Your task to perform on an android device: turn off improve location accuracy Image 0: 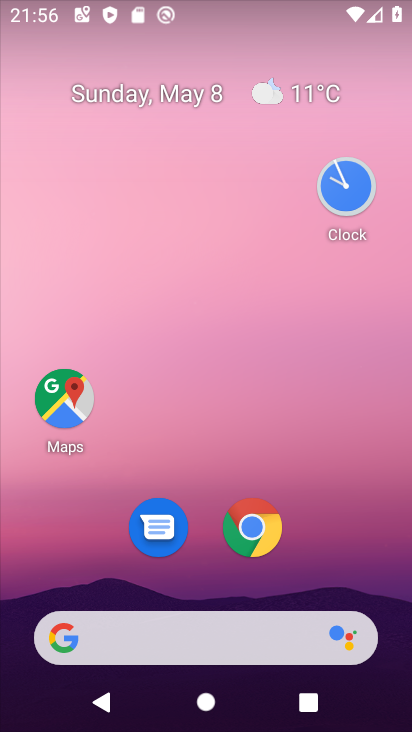
Step 0: drag from (308, 516) to (360, 125)
Your task to perform on an android device: turn off improve location accuracy Image 1: 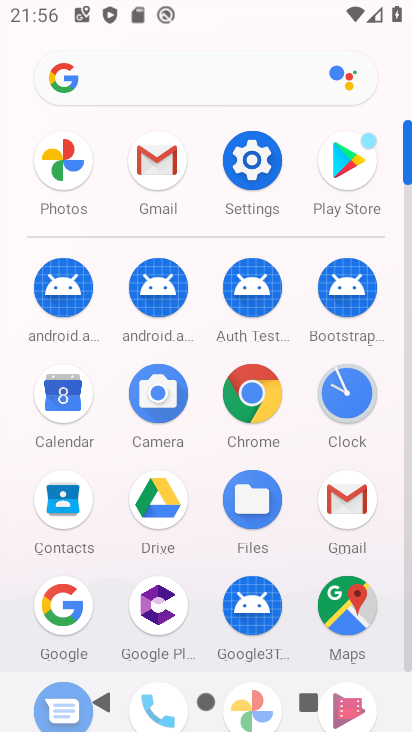
Step 1: click (248, 153)
Your task to perform on an android device: turn off improve location accuracy Image 2: 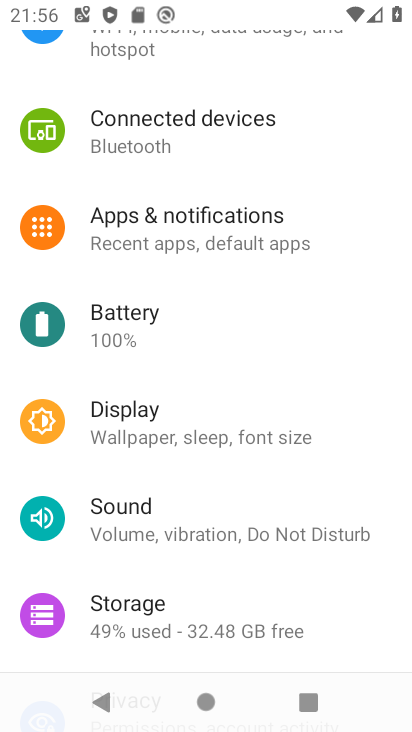
Step 2: drag from (201, 425) to (223, 168)
Your task to perform on an android device: turn off improve location accuracy Image 3: 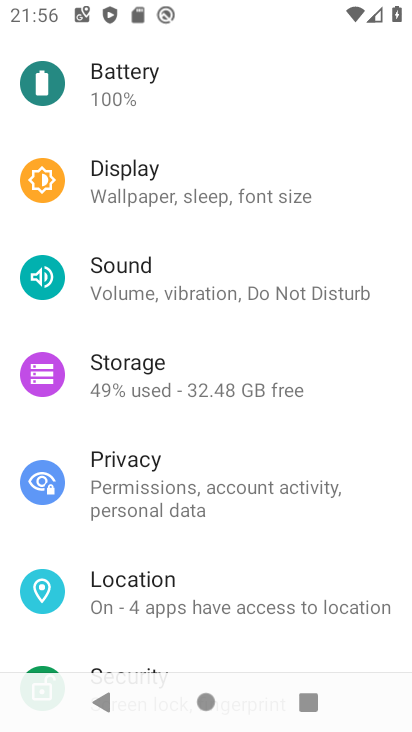
Step 3: click (192, 586)
Your task to perform on an android device: turn off improve location accuracy Image 4: 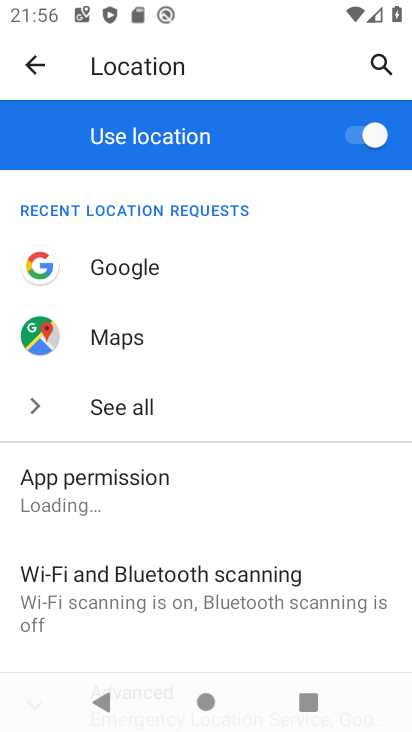
Step 4: drag from (263, 578) to (352, 66)
Your task to perform on an android device: turn off improve location accuracy Image 5: 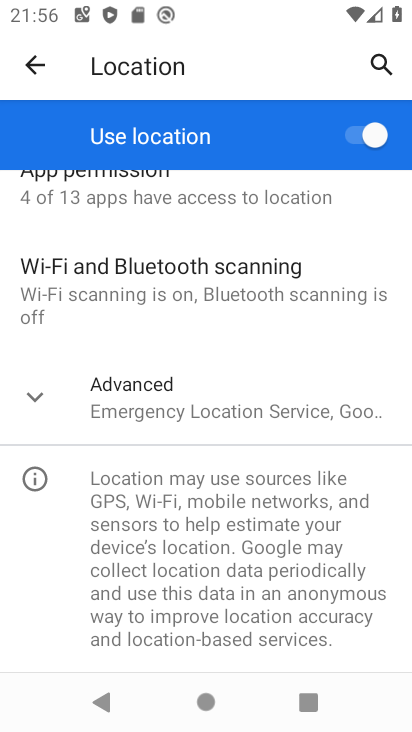
Step 5: click (221, 405)
Your task to perform on an android device: turn off improve location accuracy Image 6: 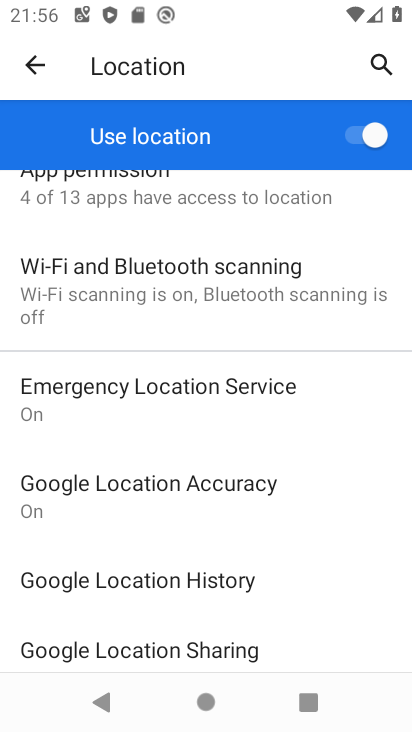
Step 6: click (203, 487)
Your task to perform on an android device: turn off improve location accuracy Image 7: 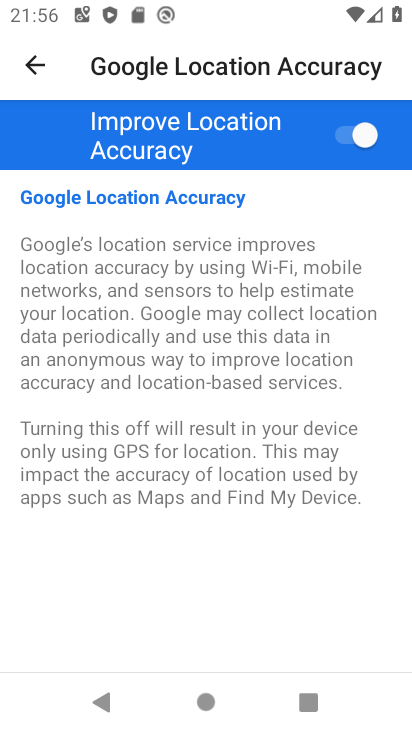
Step 7: click (375, 133)
Your task to perform on an android device: turn off improve location accuracy Image 8: 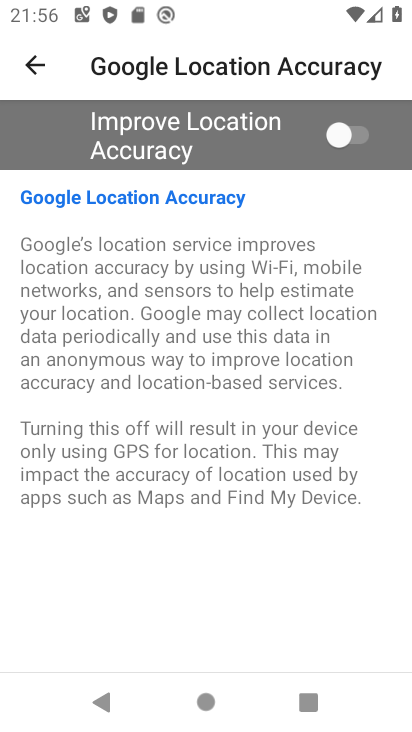
Step 8: task complete